Your task to perform on an android device: add a contact in the contacts app Image 0: 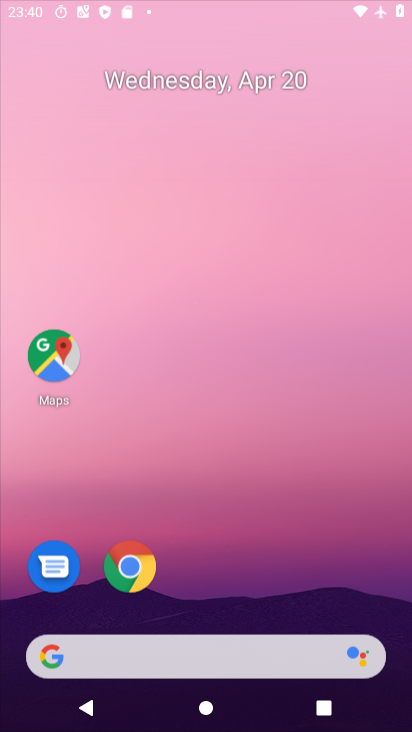
Step 0: click (269, 247)
Your task to perform on an android device: add a contact in the contacts app Image 1: 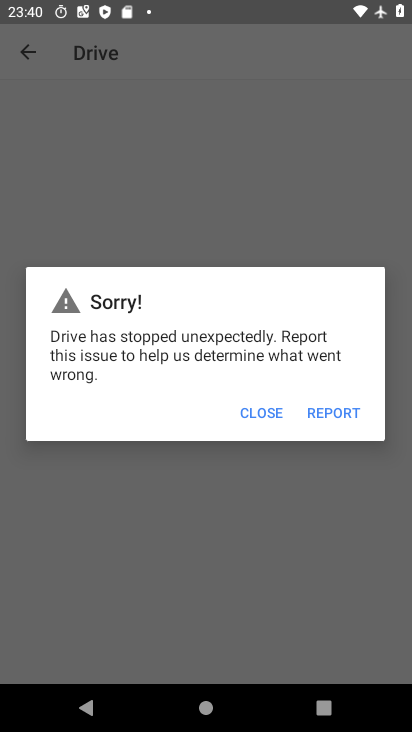
Step 1: press home button
Your task to perform on an android device: add a contact in the contacts app Image 2: 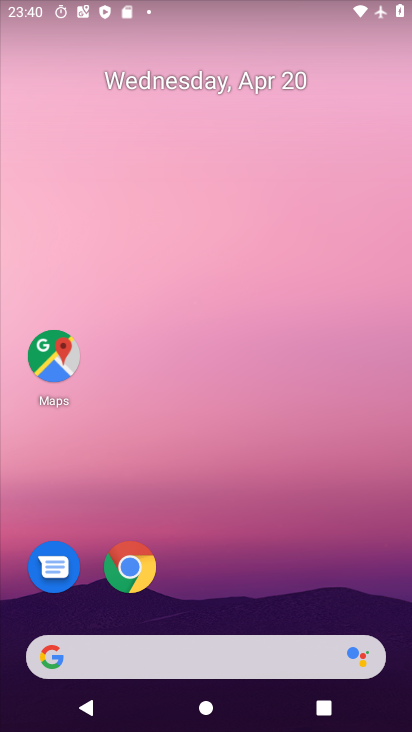
Step 2: drag from (243, 375) to (243, 329)
Your task to perform on an android device: add a contact in the contacts app Image 3: 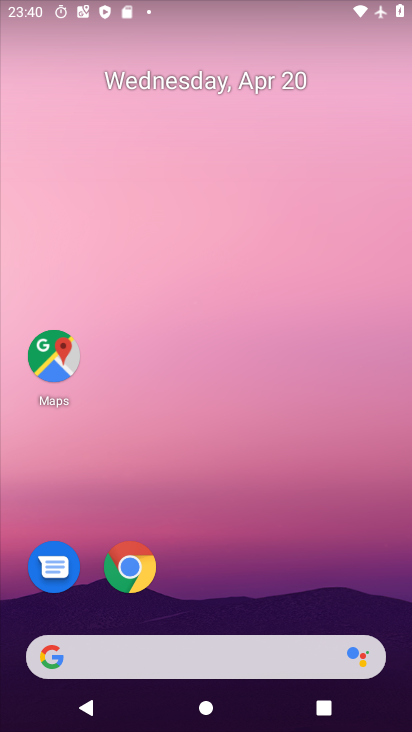
Step 3: drag from (249, 509) to (250, 287)
Your task to perform on an android device: add a contact in the contacts app Image 4: 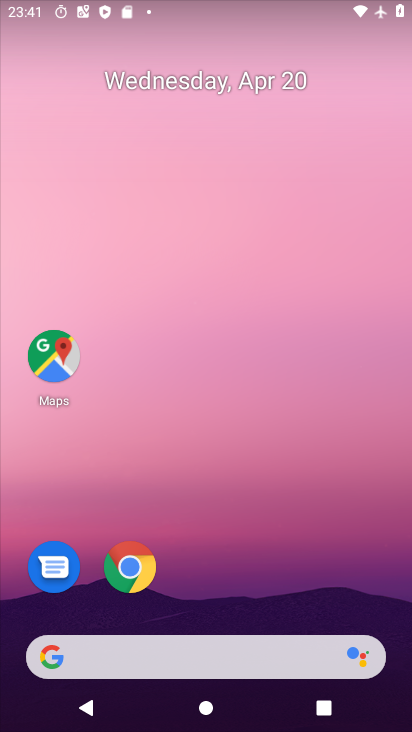
Step 4: drag from (229, 615) to (298, 195)
Your task to perform on an android device: add a contact in the contacts app Image 5: 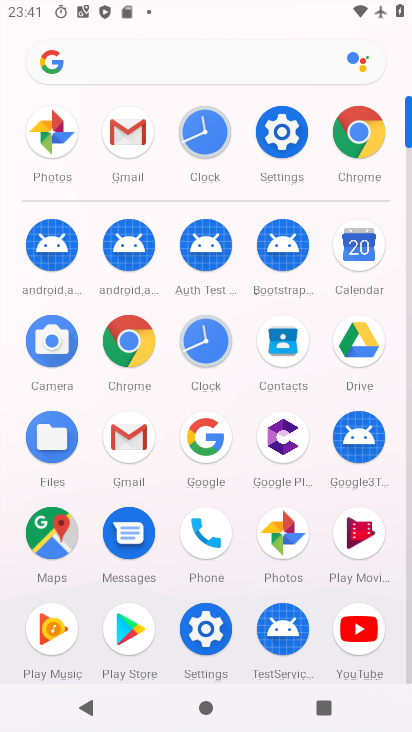
Step 5: click (197, 529)
Your task to perform on an android device: add a contact in the contacts app Image 6: 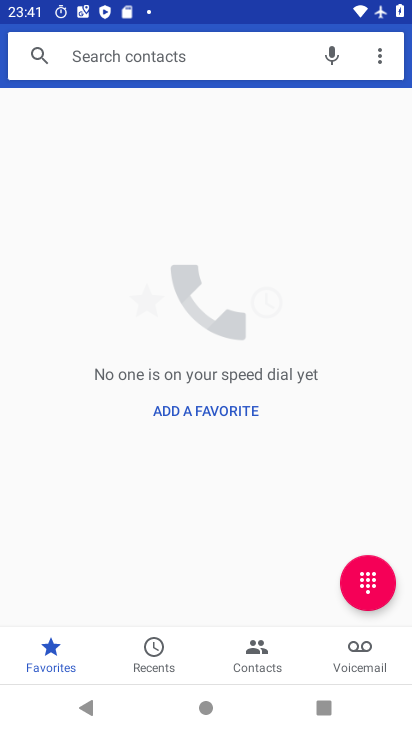
Step 6: click (183, 408)
Your task to perform on an android device: add a contact in the contacts app Image 7: 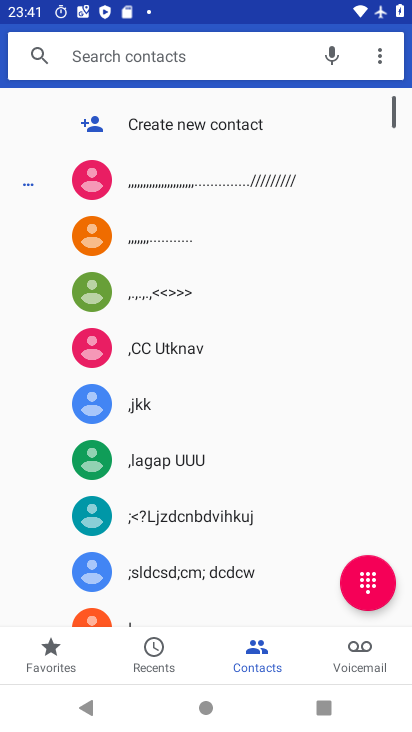
Step 7: click (185, 112)
Your task to perform on an android device: add a contact in the contacts app Image 8: 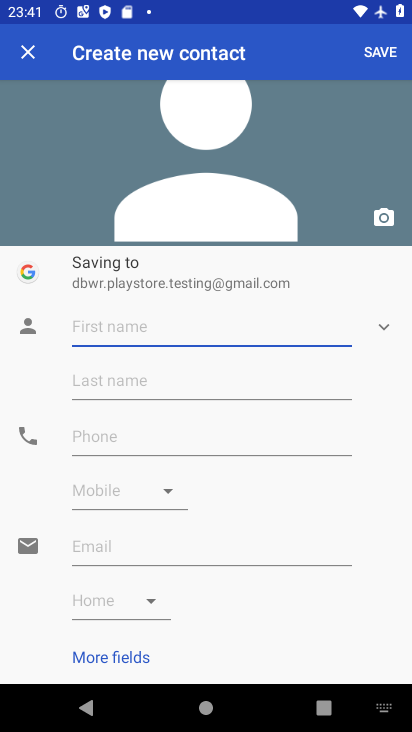
Step 8: type "fffff"
Your task to perform on an android device: add a contact in the contacts app Image 9: 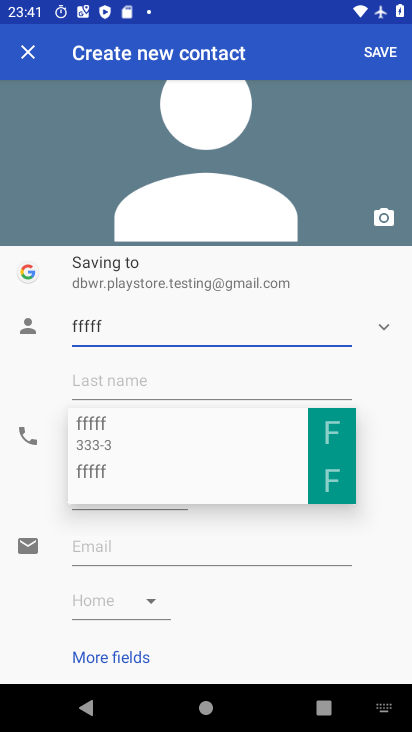
Step 9: click (170, 425)
Your task to perform on an android device: add a contact in the contacts app Image 10: 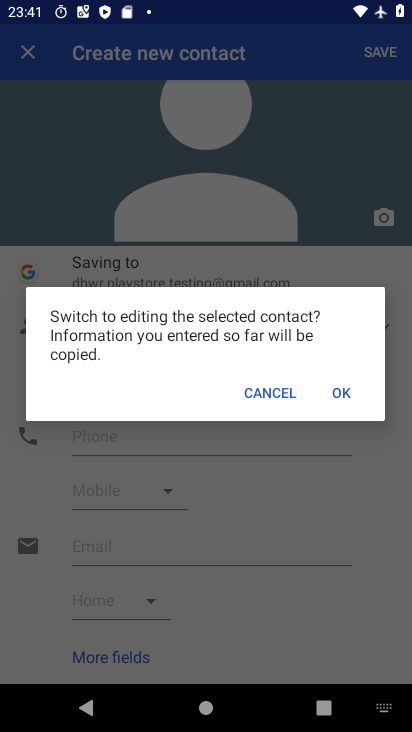
Step 10: click (287, 390)
Your task to perform on an android device: add a contact in the contacts app Image 11: 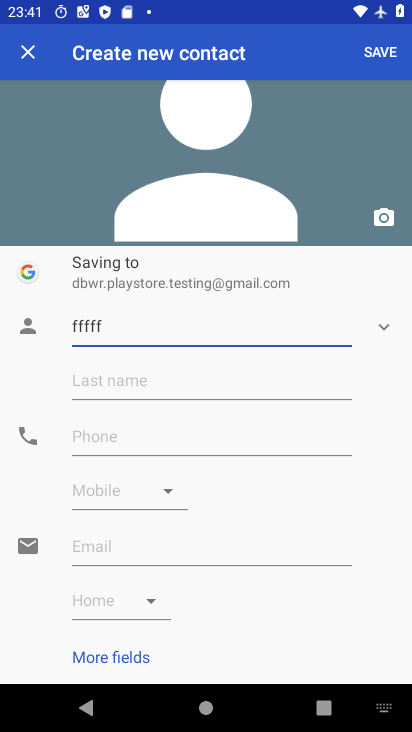
Step 11: type "ooooooooo"
Your task to perform on an android device: add a contact in the contacts app Image 12: 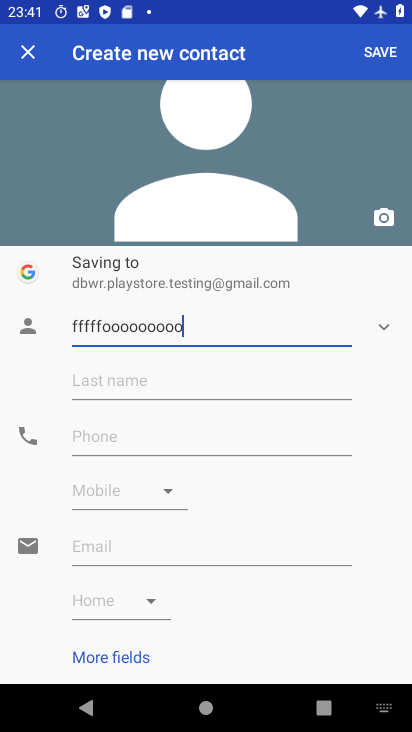
Step 12: click (136, 447)
Your task to perform on an android device: add a contact in the contacts app Image 13: 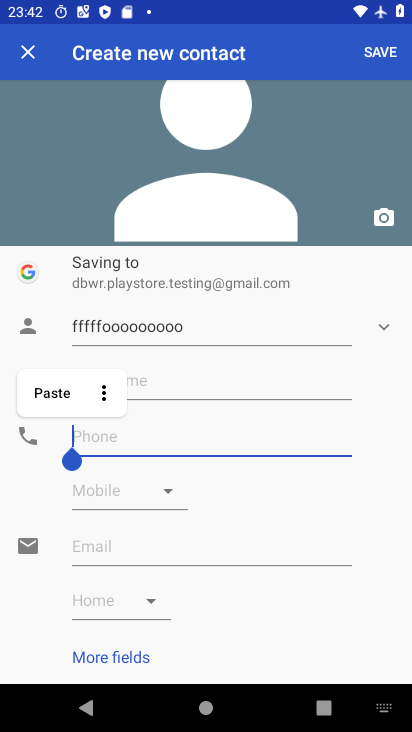
Step 13: type "66666666666"
Your task to perform on an android device: add a contact in the contacts app Image 14: 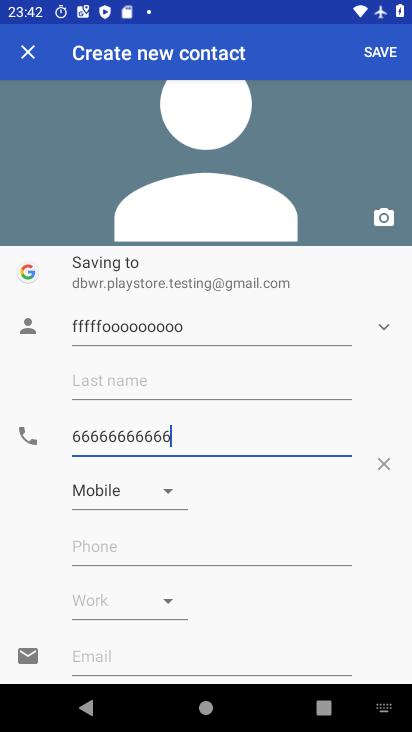
Step 14: click (356, 36)
Your task to perform on an android device: add a contact in the contacts app Image 15: 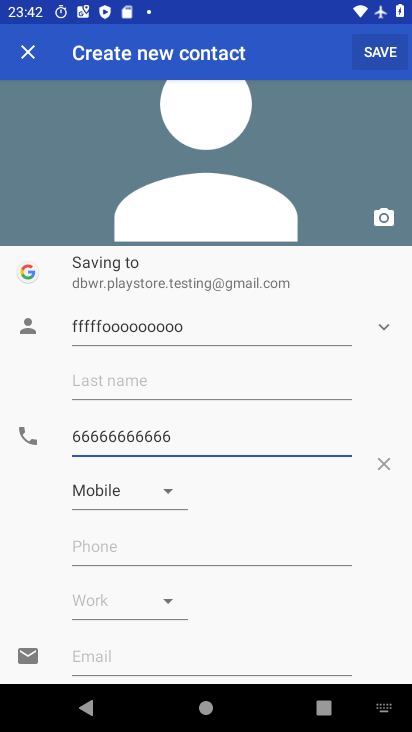
Step 15: click (370, 49)
Your task to perform on an android device: add a contact in the contacts app Image 16: 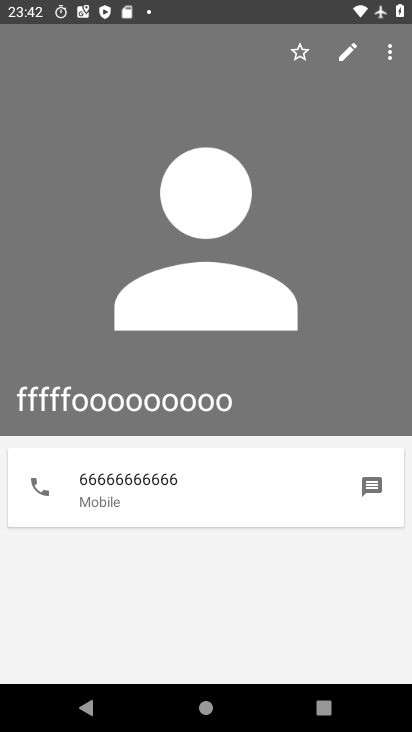
Step 16: task complete